Your task to perform on an android device: turn off airplane mode Image 0: 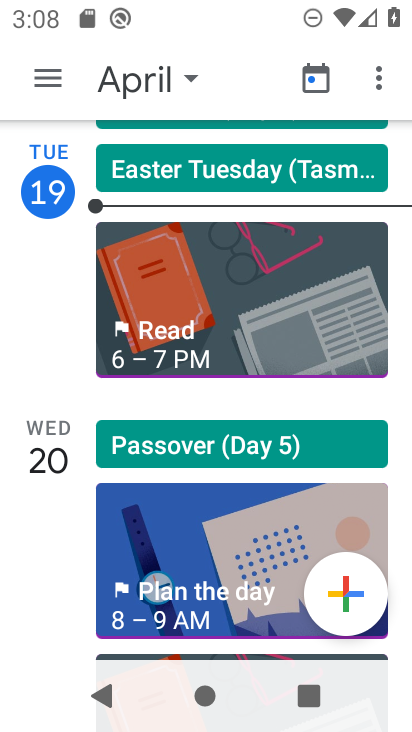
Step 0: press home button
Your task to perform on an android device: turn off airplane mode Image 1: 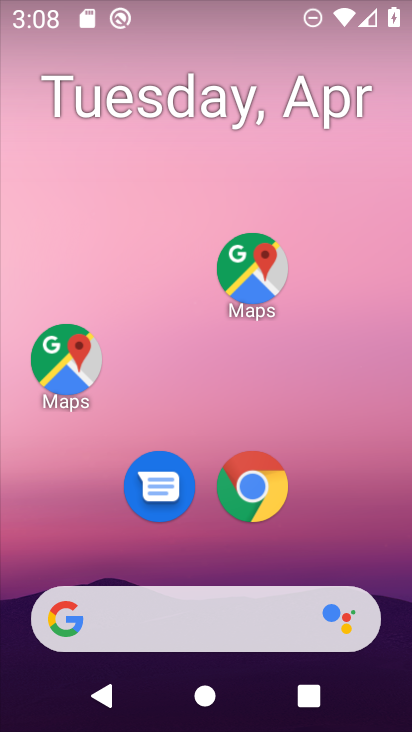
Step 1: drag from (284, 548) to (272, 144)
Your task to perform on an android device: turn off airplane mode Image 2: 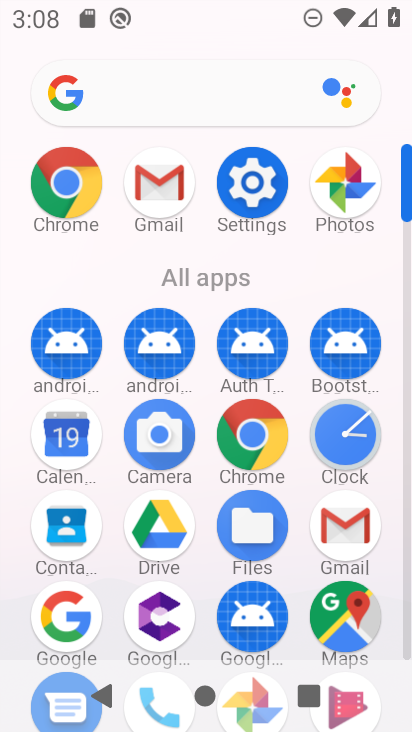
Step 2: click (244, 190)
Your task to perform on an android device: turn off airplane mode Image 3: 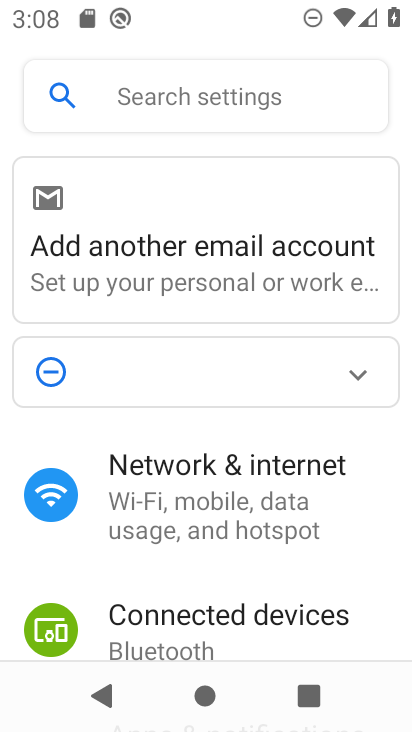
Step 3: drag from (215, 546) to (249, 280)
Your task to perform on an android device: turn off airplane mode Image 4: 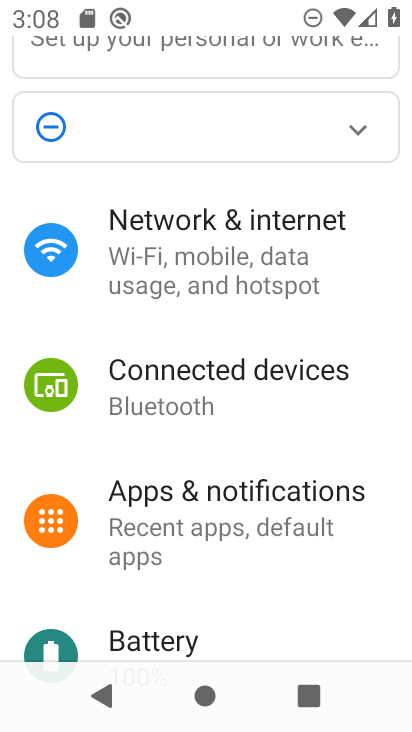
Step 4: drag from (272, 396) to (289, 319)
Your task to perform on an android device: turn off airplane mode Image 5: 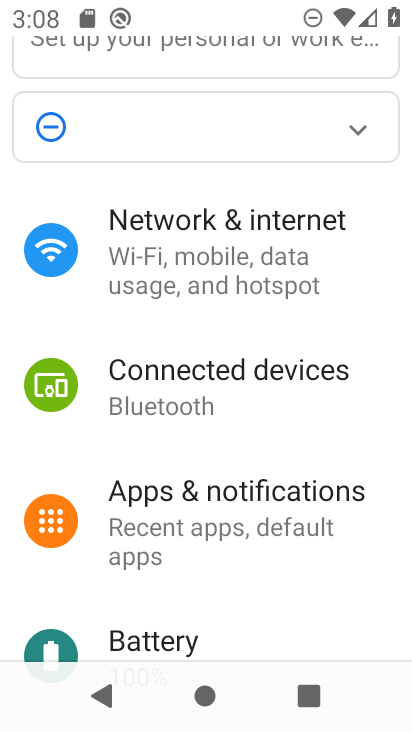
Step 5: drag from (252, 373) to (254, 522)
Your task to perform on an android device: turn off airplane mode Image 6: 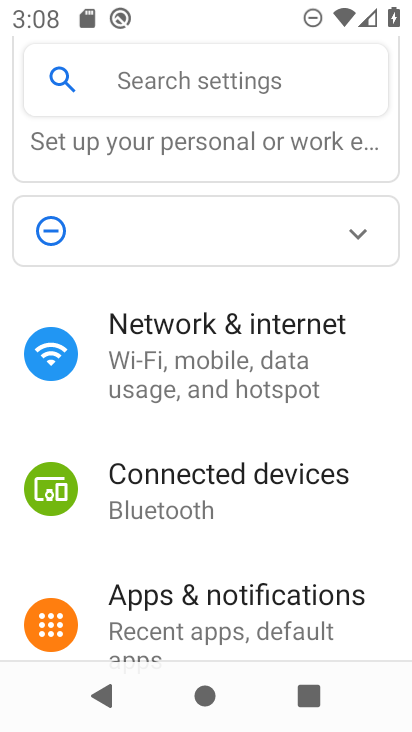
Step 6: click (248, 374)
Your task to perform on an android device: turn off airplane mode Image 7: 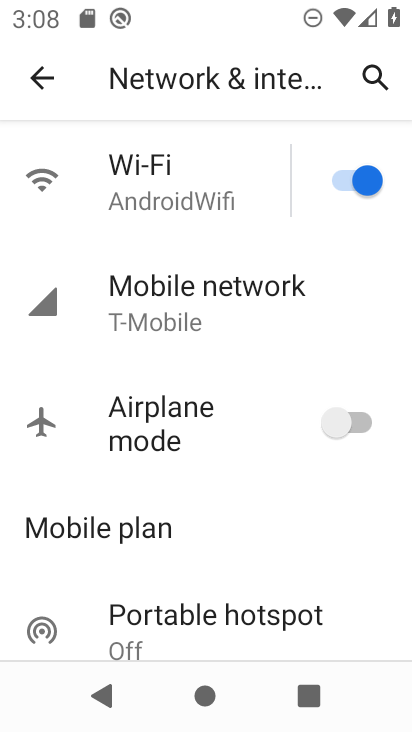
Step 7: task complete